Your task to perform on an android device: Open Maps and search for coffee Image 0: 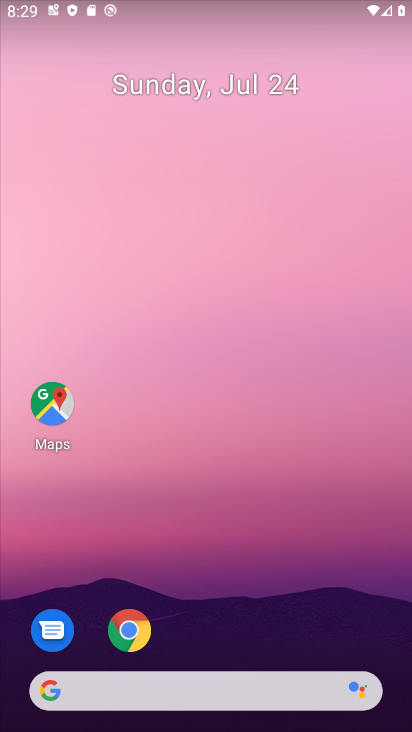
Step 0: click (60, 419)
Your task to perform on an android device: Open Maps and search for coffee Image 1: 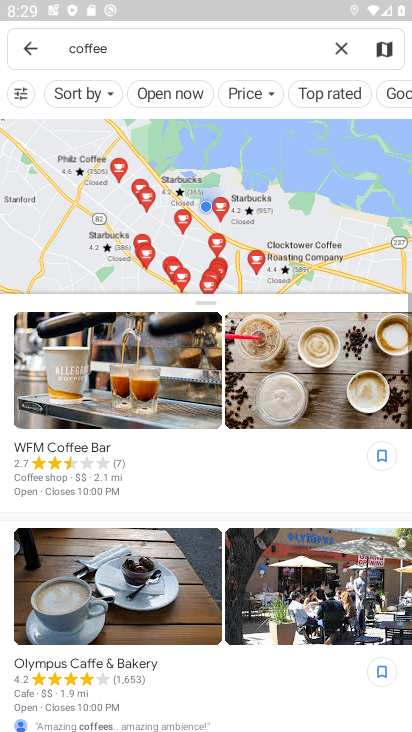
Step 1: click (341, 52)
Your task to perform on an android device: Open Maps and search for coffee Image 2: 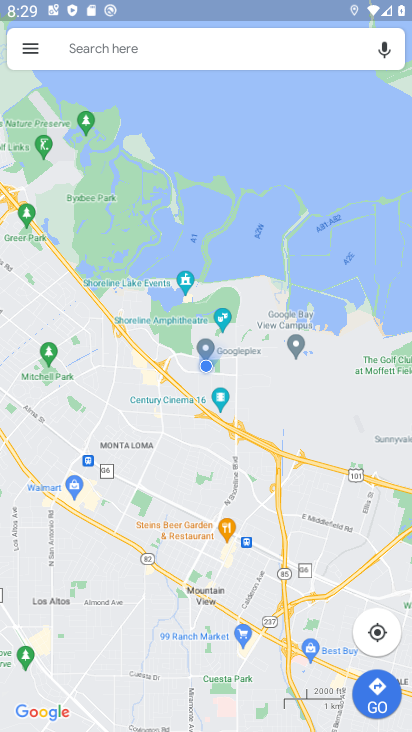
Step 2: click (145, 52)
Your task to perform on an android device: Open Maps and search for coffee Image 3: 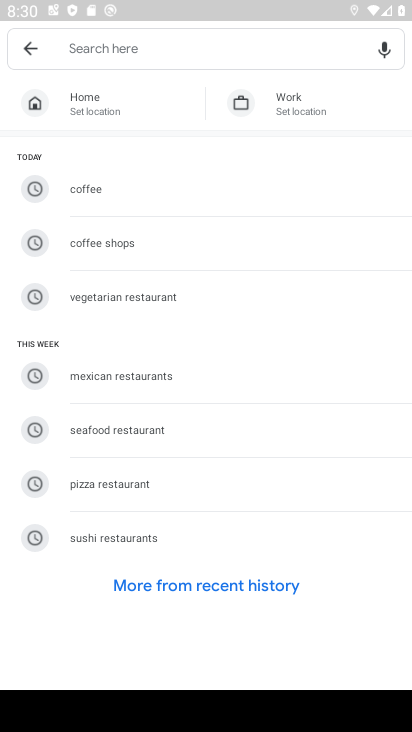
Step 3: click (104, 196)
Your task to perform on an android device: Open Maps and search for coffee Image 4: 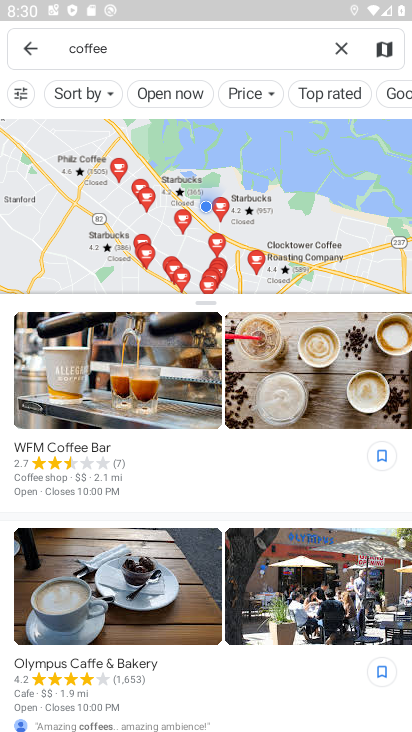
Step 4: task complete